Your task to perform on an android device: Add "bose soundlink mini" to the cart on newegg Image 0: 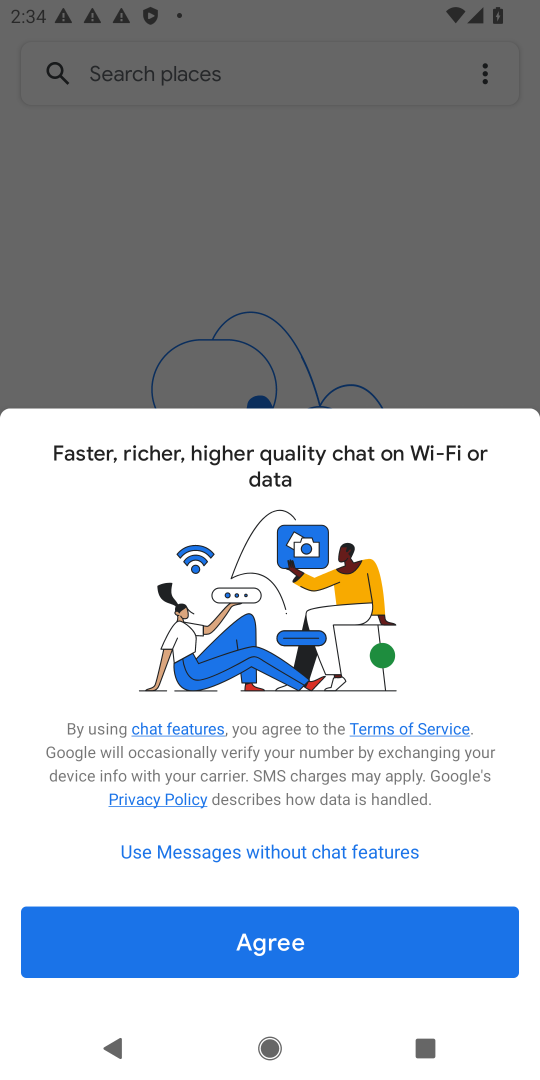
Step 0: task complete